Your task to perform on an android device: Go to eBay Image 0: 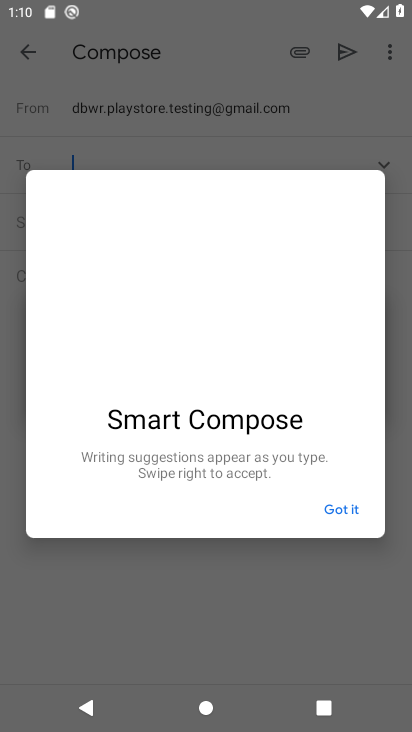
Step 0: press home button
Your task to perform on an android device: Go to eBay Image 1: 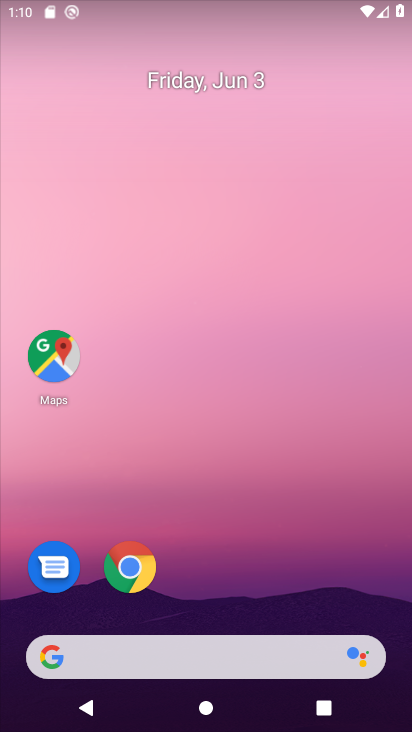
Step 1: click (130, 564)
Your task to perform on an android device: Go to eBay Image 2: 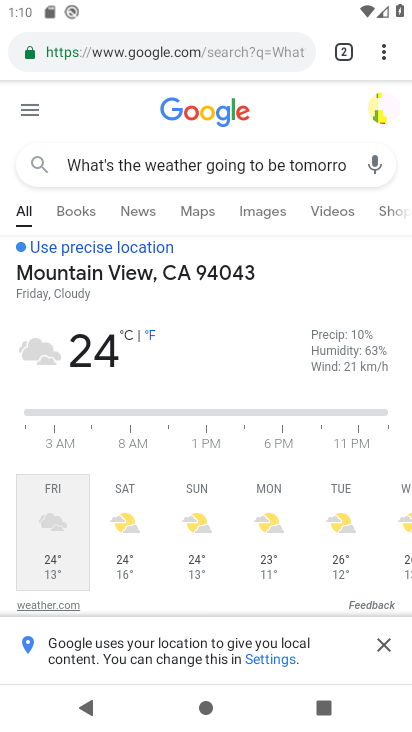
Step 2: click (382, 57)
Your task to perform on an android device: Go to eBay Image 3: 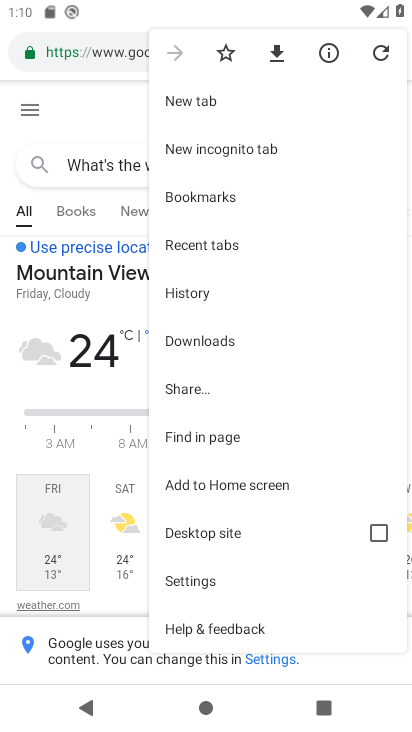
Step 3: click (181, 95)
Your task to perform on an android device: Go to eBay Image 4: 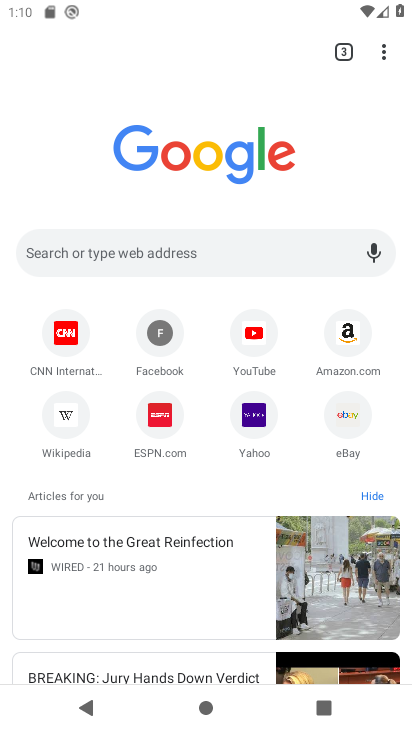
Step 4: click (360, 419)
Your task to perform on an android device: Go to eBay Image 5: 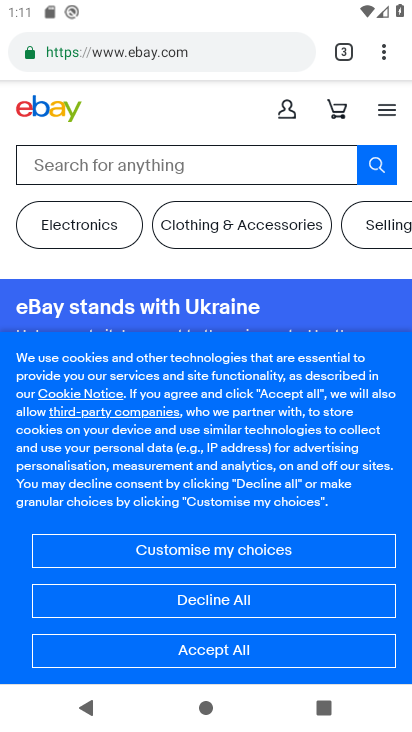
Step 5: task complete